Your task to perform on an android device: allow cookies in the chrome app Image 0: 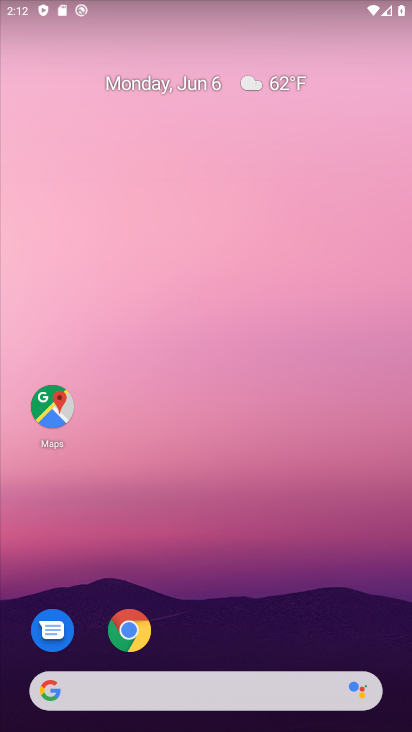
Step 0: click (129, 625)
Your task to perform on an android device: allow cookies in the chrome app Image 1: 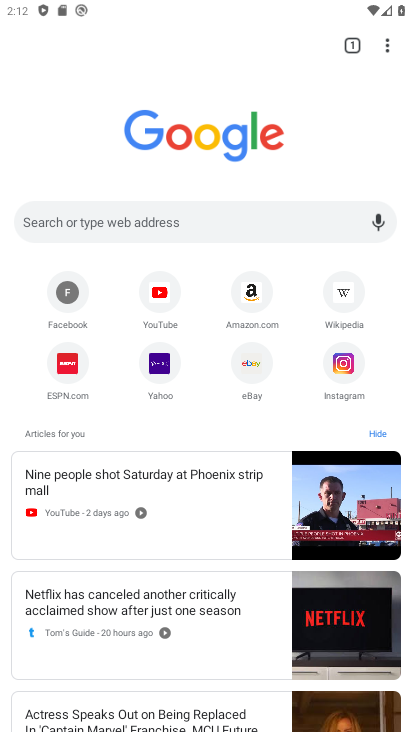
Step 1: drag from (385, 49) to (240, 374)
Your task to perform on an android device: allow cookies in the chrome app Image 2: 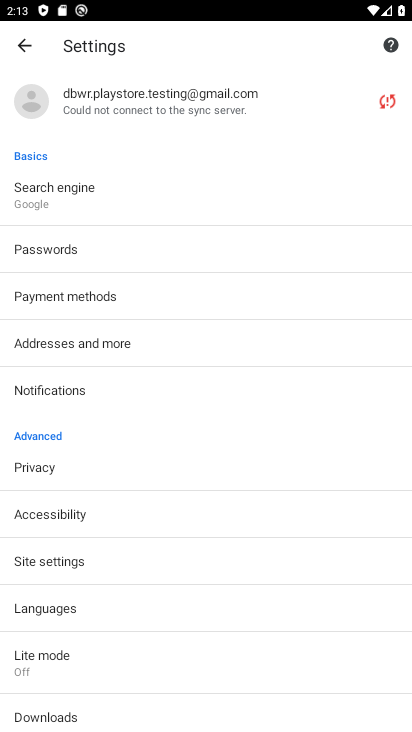
Step 2: click (20, 555)
Your task to perform on an android device: allow cookies in the chrome app Image 3: 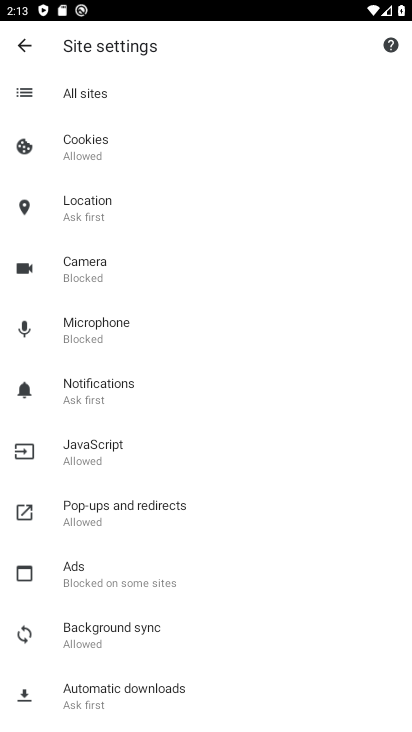
Step 3: click (117, 144)
Your task to perform on an android device: allow cookies in the chrome app Image 4: 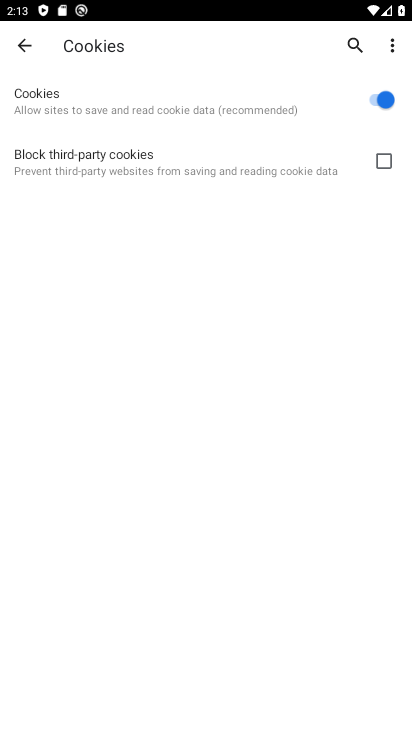
Step 4: task complete